Your task to perform on an android device: Open Wikipedia Image 0: 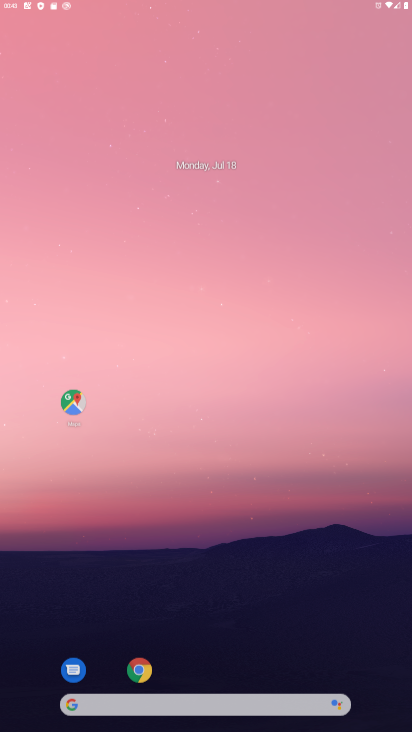
Step 0: click (390, 42)
Your task to perform on an android device: Open Wikipedia Image 1: 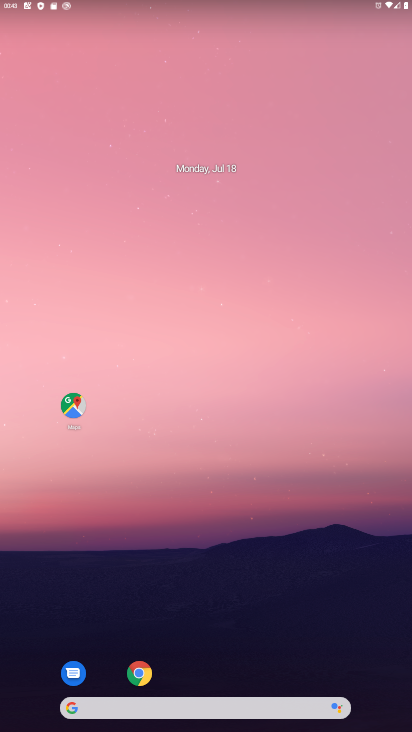
Step 1: drag from (271, 618) to (238, 31)
Your task to perform on an android device: Open Wikipedia Image 2: 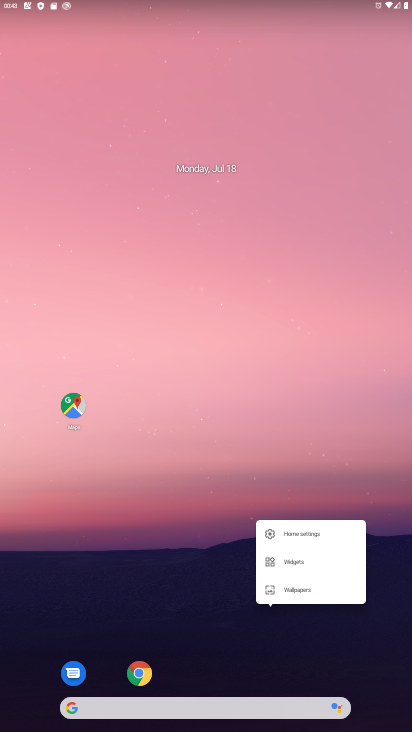
Step 2: click (197, 374)
Your task to perform on an android device: Open Wikipedia Image 3: 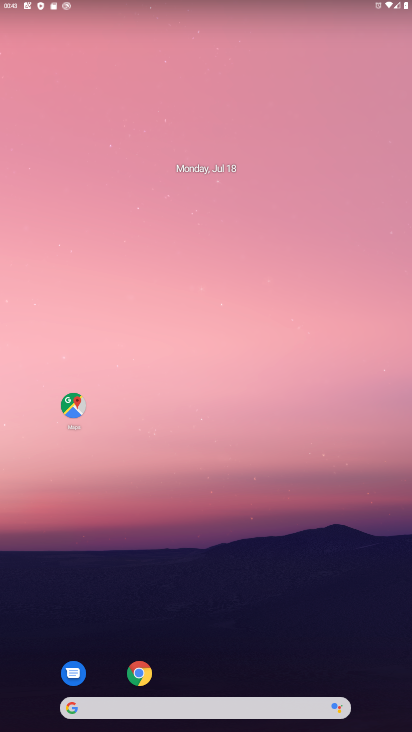
Step 3: drag from (228, 645) to (202, 83)
Your task to perform on an android device: Open Wikipedia Image 4: 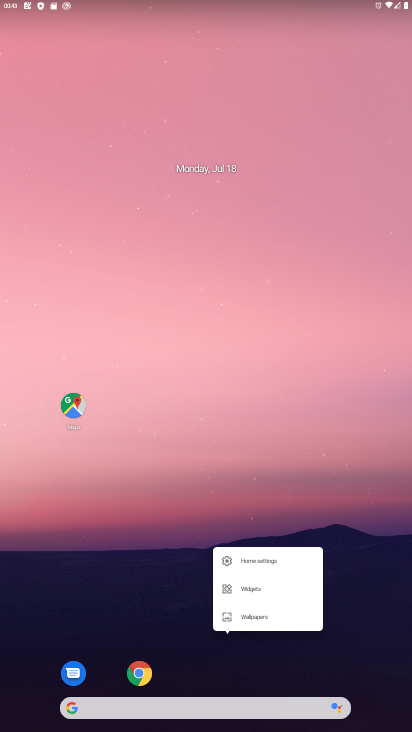
Step 4: click (208, 684)
Your task to perform on an android device: Open Wikipedia Image 5: 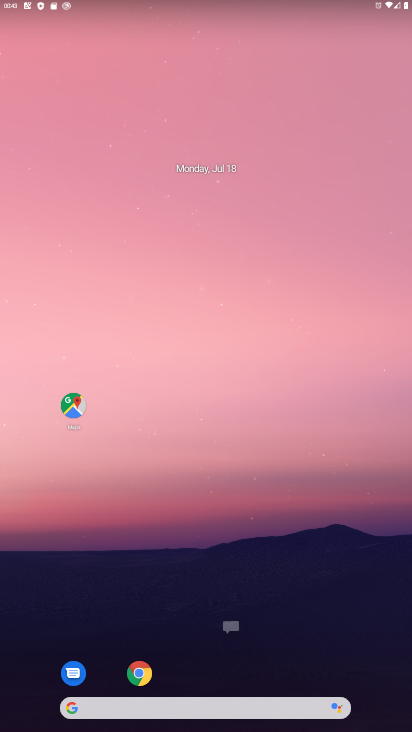
Step 5: drag from (208, 684) to (195, 10)
Your task to perform on an android device: Open Wikipedia Image 6: 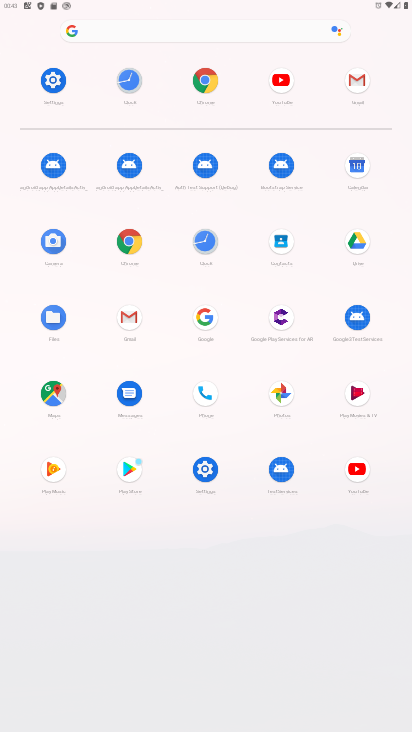
Step 6: click (186, 92)
Your task to perform on an android device: Open Wikipedia Image 7: 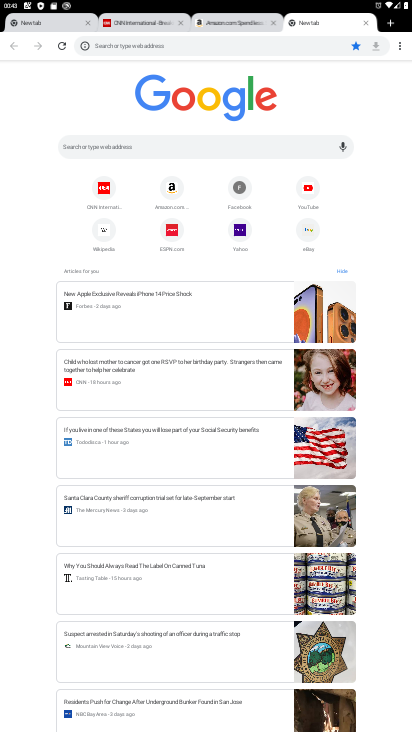
Step 7: click (285, 37)
Your task to perform on an android device: Open Wikipedia Image 8: 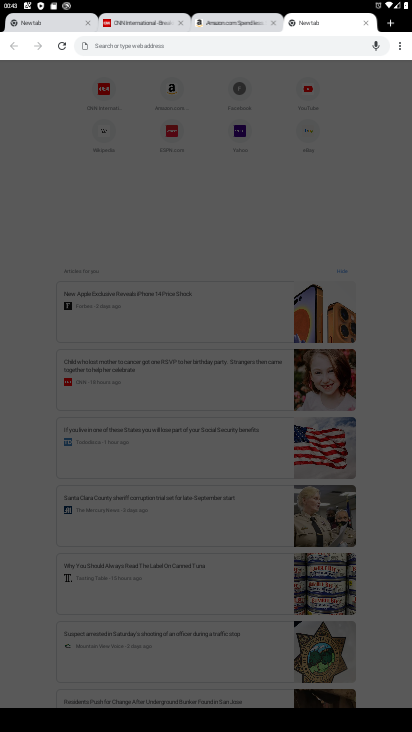
Step 8: type "wikipedia"
Your task to perform on an android device: Open Wikipedia Image 9: 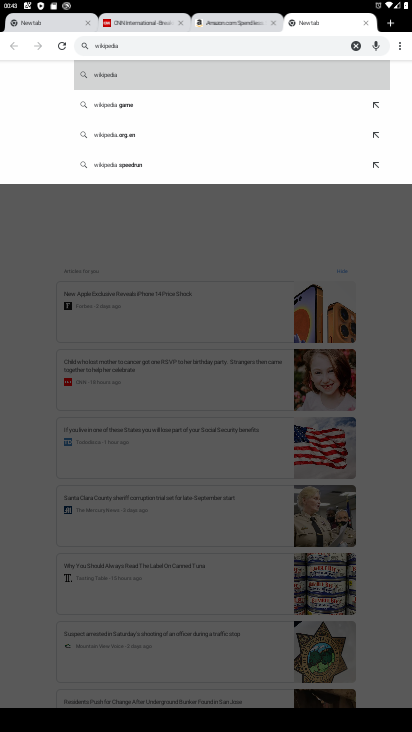
Step 9: click (139, 77)
Your task to perform on an android device: Open Wikipedia Image 10: 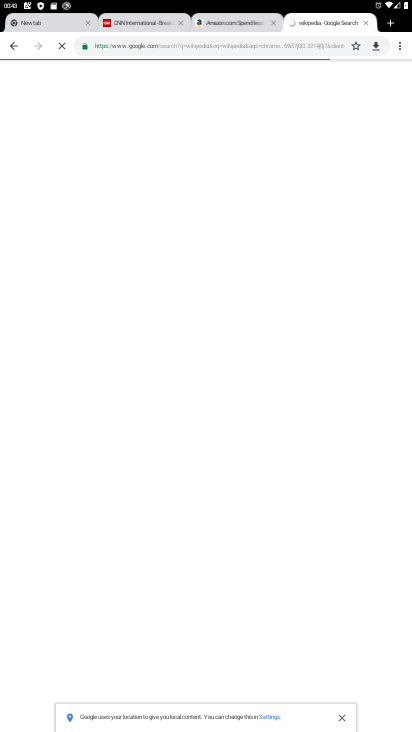
Step 10: task complete